Your task to perform on an android device: move an email to a new category in the gmail app Image 0: 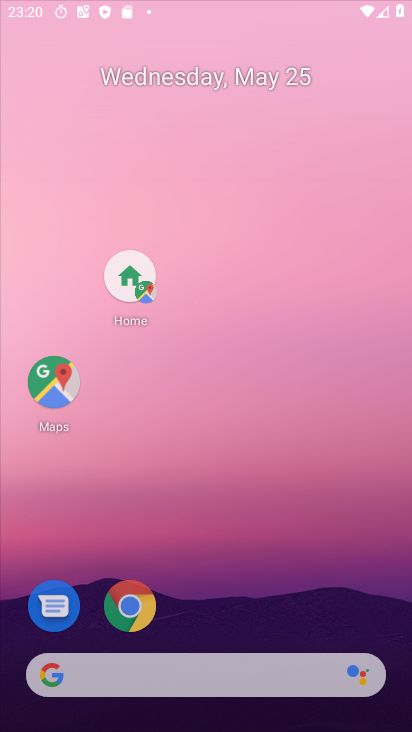
Step 0: press home button
Your task to perform on an android device: move an email to a new category in the gmail app Image 1: 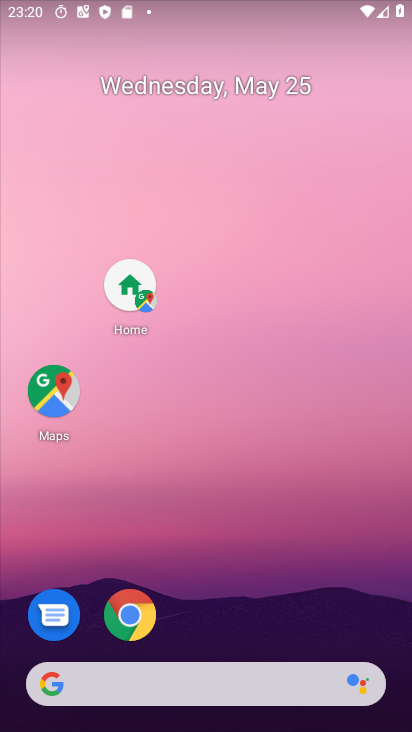
Step 1: drag from (275, 609) to (208, 247)
Your task to perform on an android device: move an email to a new category in the gmail app Image 2: 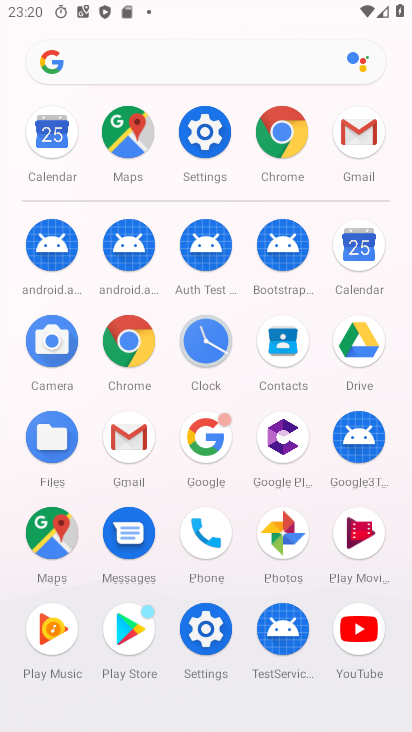
Step 2: click (371, 135)
Your task to perform on an android device: move an email to a new category in the gmail app Image 3: 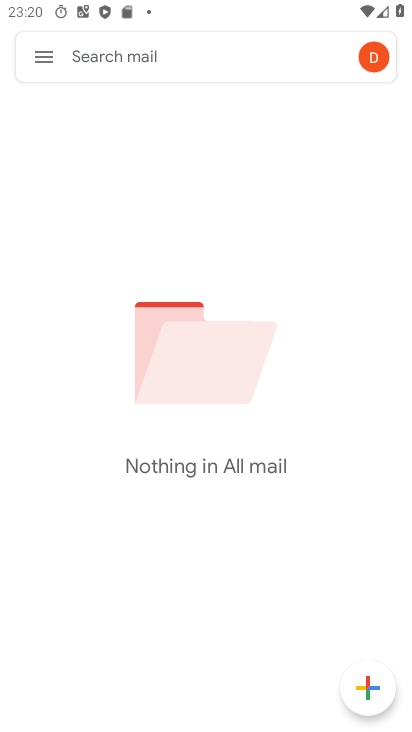
Step 3: click (39, 64)
Your task to perform on an android device: move an email to a new category in the gmail app Image 4: 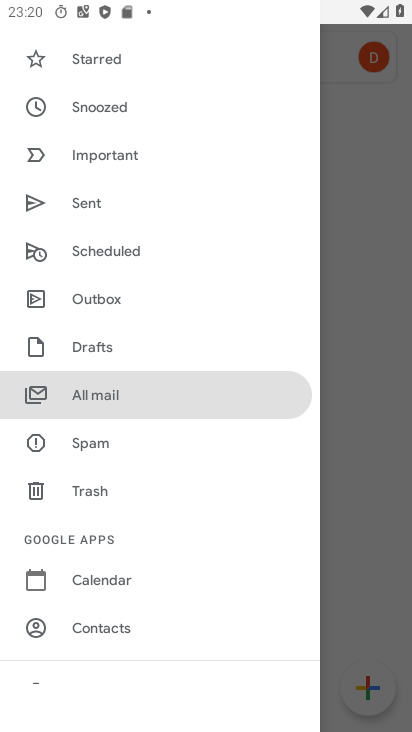
Step 4: click (103, 392)
Your task to perform on an android device: move an email to a new category in the gmail app Image 5: 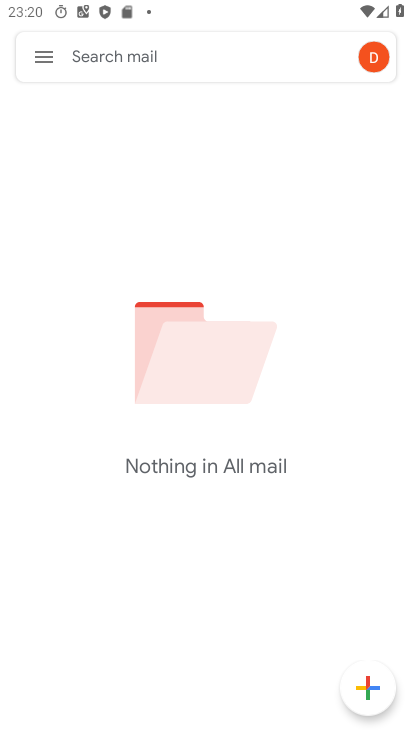
Step 5: task complete